Your task to perform on an android device: turn off notifications in google photos Image 0: 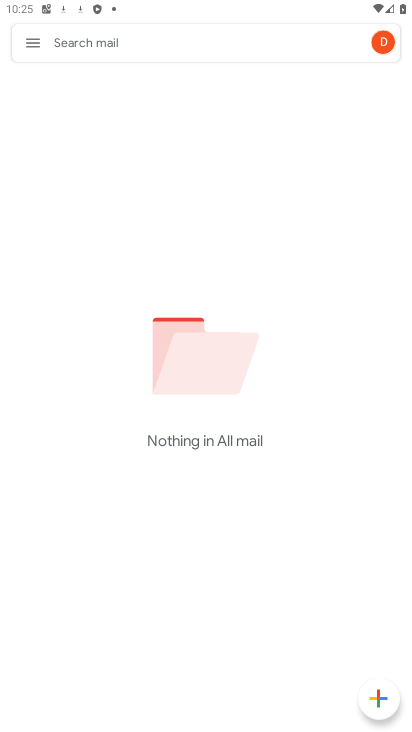
Step 0: press home button
Your task to perform on an android device: turn off notifications in google photos Image 1: 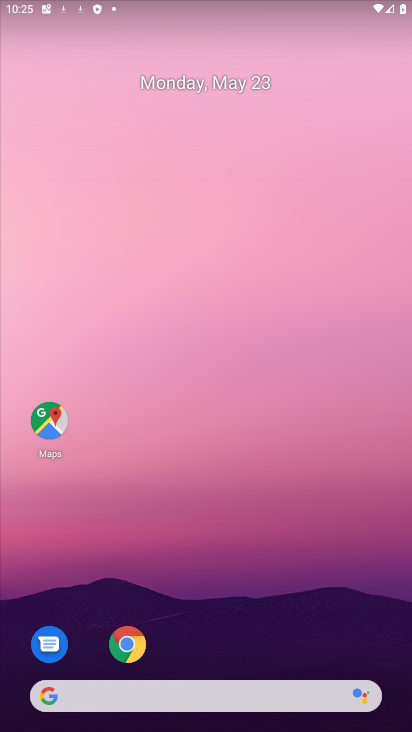
Step 1: drag from (215, 724) to (203, 1)
Your task to perform on an android device: turn off notifications in google photos Image 2: 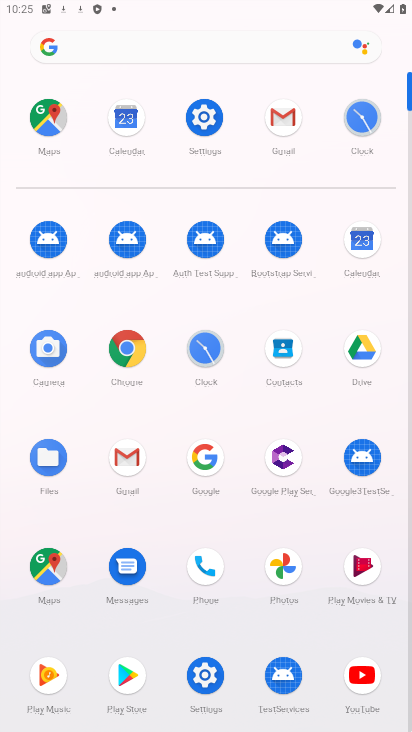
Step 2: click (286, 561)
Your task to perform on an android device: turn off notifications in google photos Image 3: 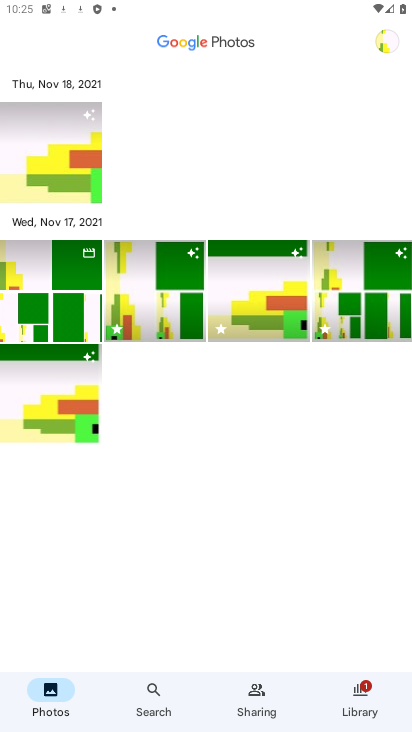
Step 3: click (384, 34)
Your task to perform on an android device: turn off notifications in google photos Image 4: 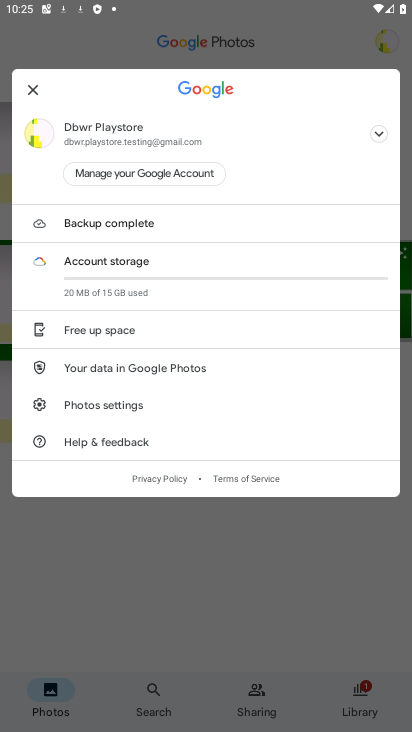
Step 4: click (111, 409)
Your task to perform on an android device: turn off notifications in google photos Image 5: 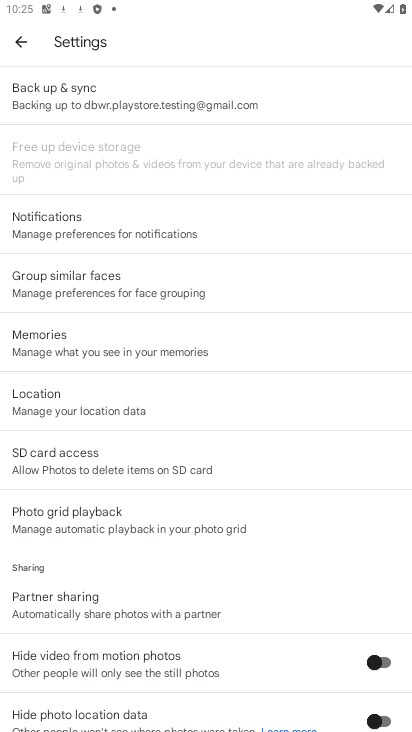
Step 5: click (90, 229)
Your task to perform on an android device: turn off notifications in google photos Image 6: 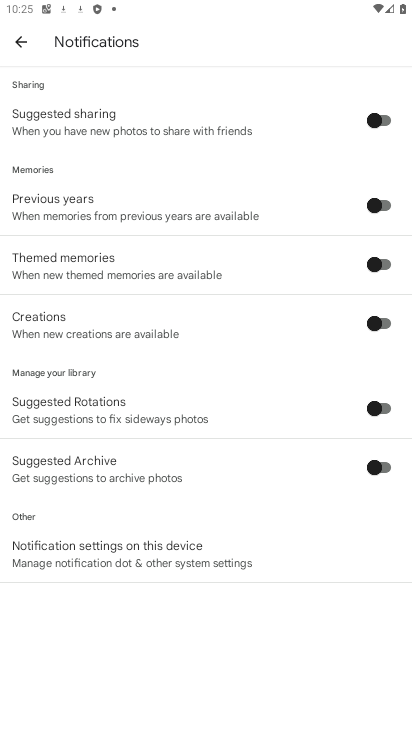
Step 6: click (153, 558)
Your task to perform on an android device: turn off notifications in google photos Image 7: 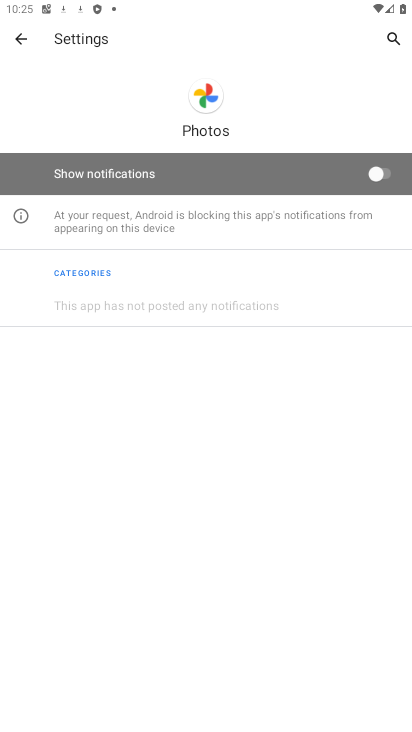
Step 7: click (382, 169)
Your task to perform on an android device: turn off notifications in google photos Image 8: 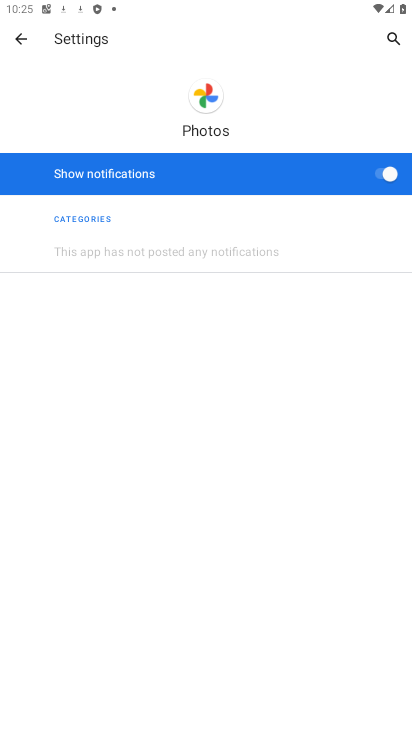
Step 8: click (382, 169)
Your task to perform on an android device: turn off notifications in google photos Image 9: 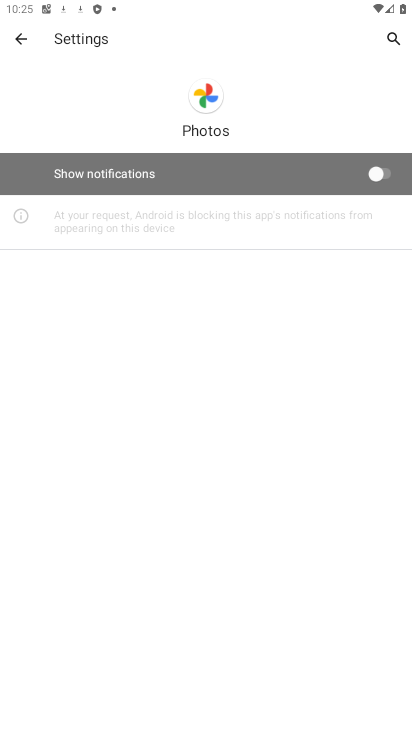
Step 9: task complete